Your task to perform on an android device: Open Chrome and go to the settings page Image 0: 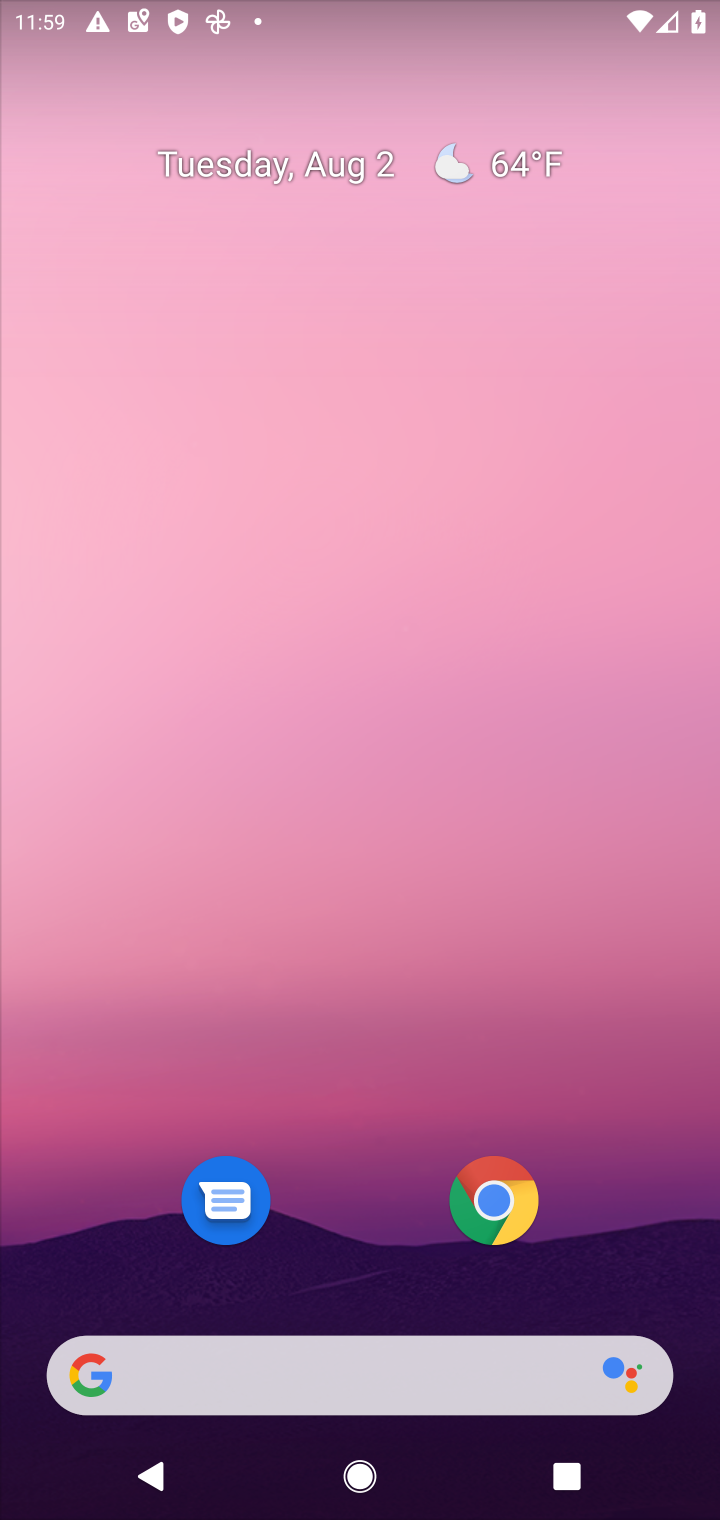
Step 0: click (498, 1202)
Your task to perform on an android device: Open Chrome and go to the settings page Image 1: 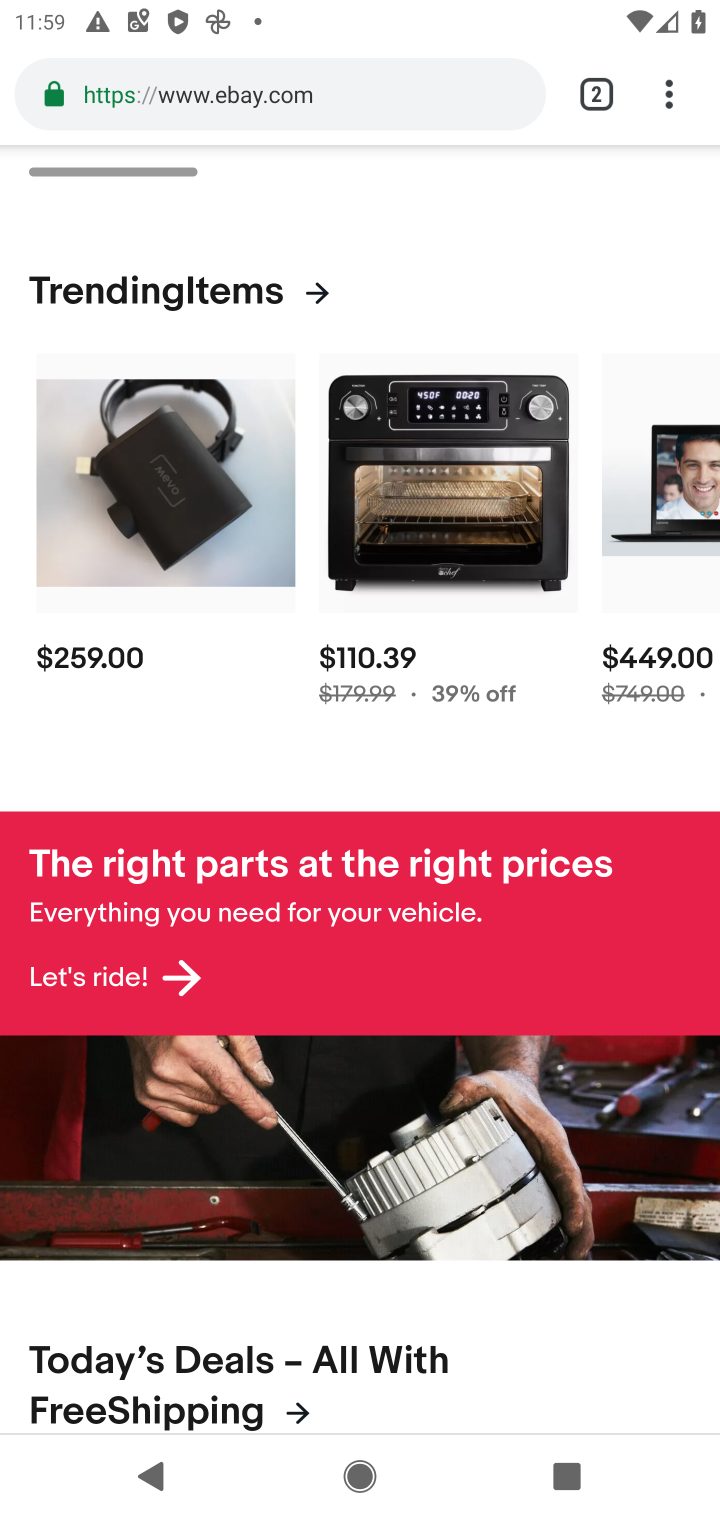
Step 1: click (669, 107)
Your task to perform on an android device: Open Chrome and go to the settings page Image 2: 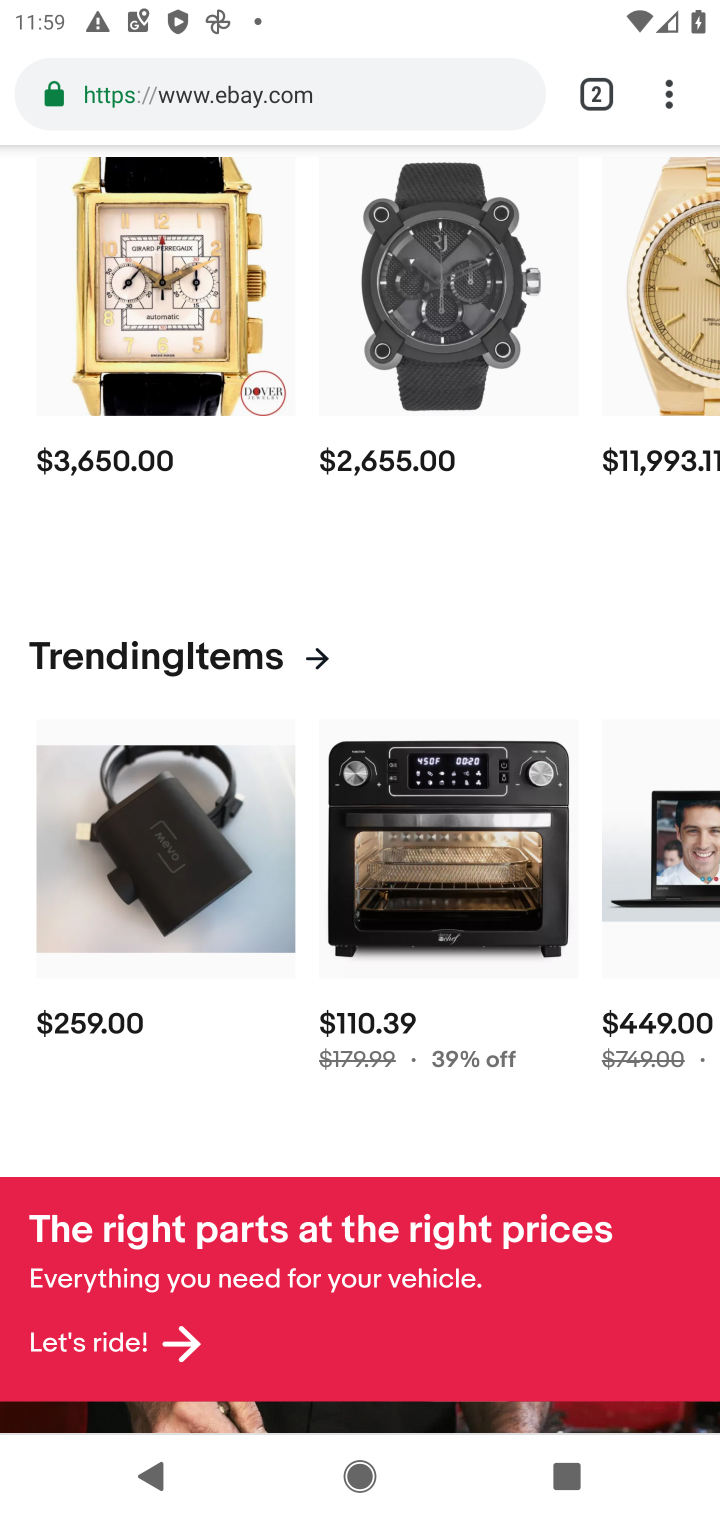
Step 2: click (665, 106)
Your task to perform on an android device: Open Chrome and go to the settings page Image 3: 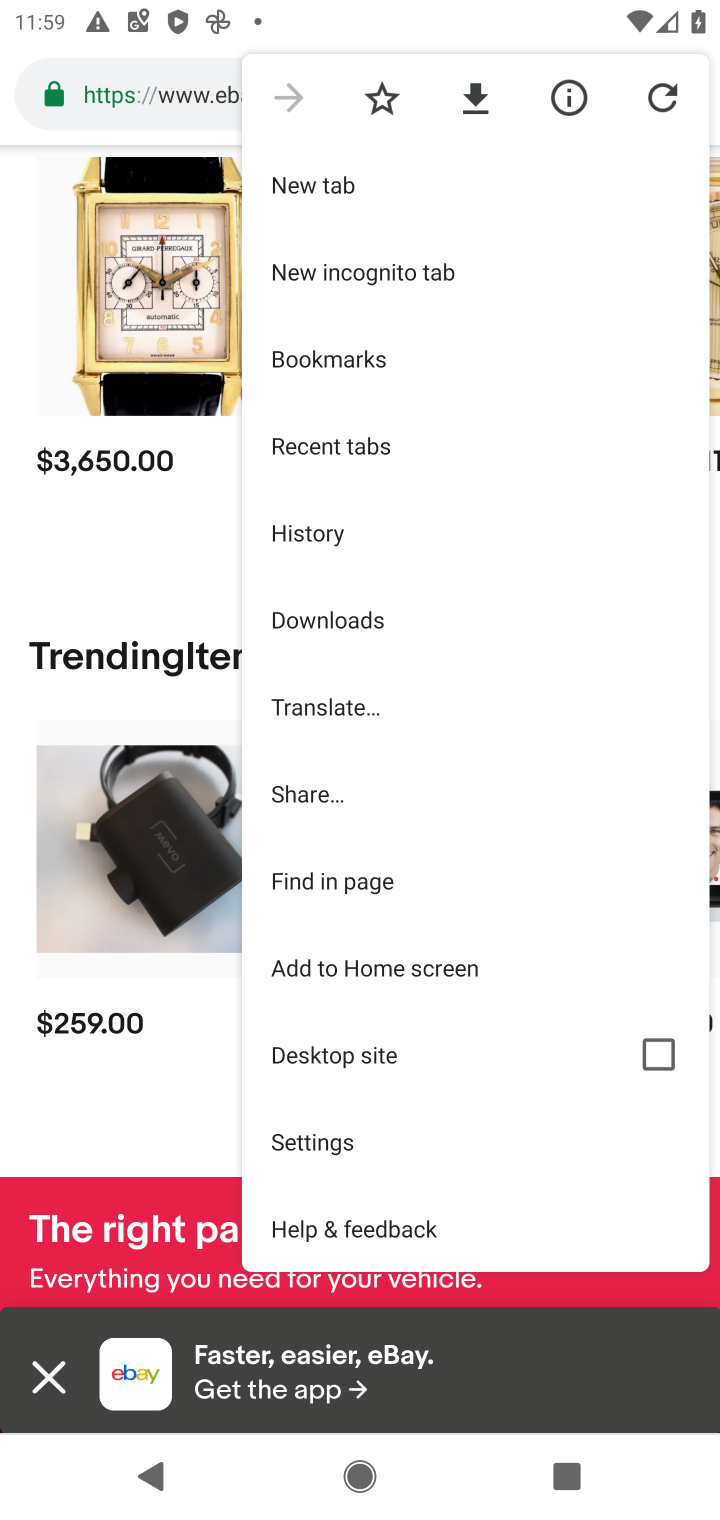
Step 3: click (316, 1139)
Your task to perform on an android device: Open Chrome and go to the settings page Image 4: 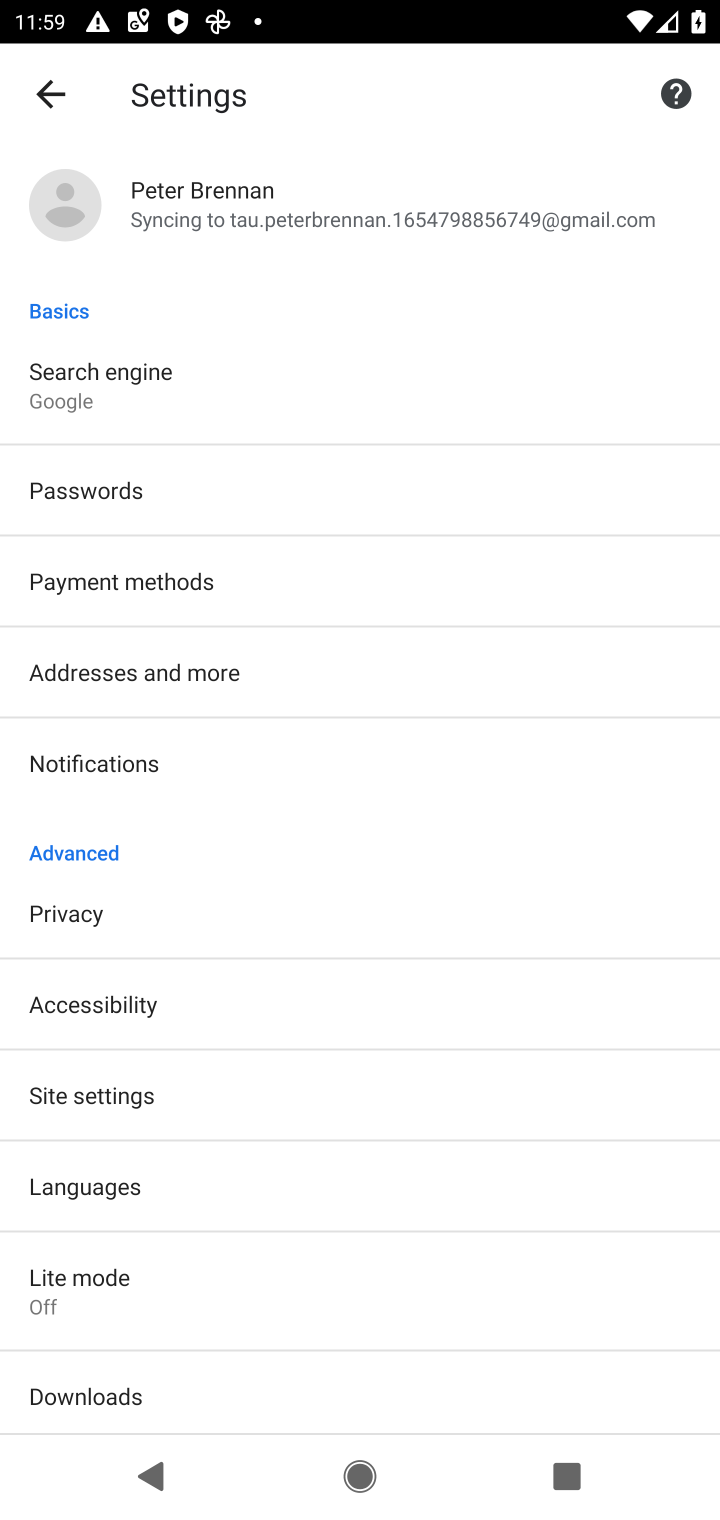
Step 4: task complete